Your task to perform on an android device: uninstall "Firefox Browser" Image 0: 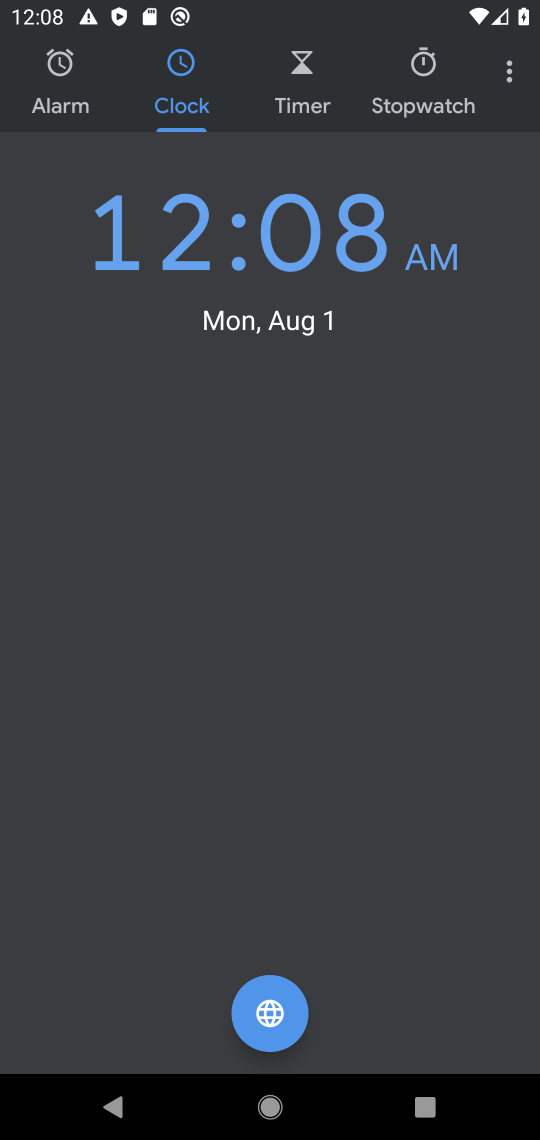
Step 0: press home button
Your task to perform on an android device: uninstall "Firefox Browser" Image 1: 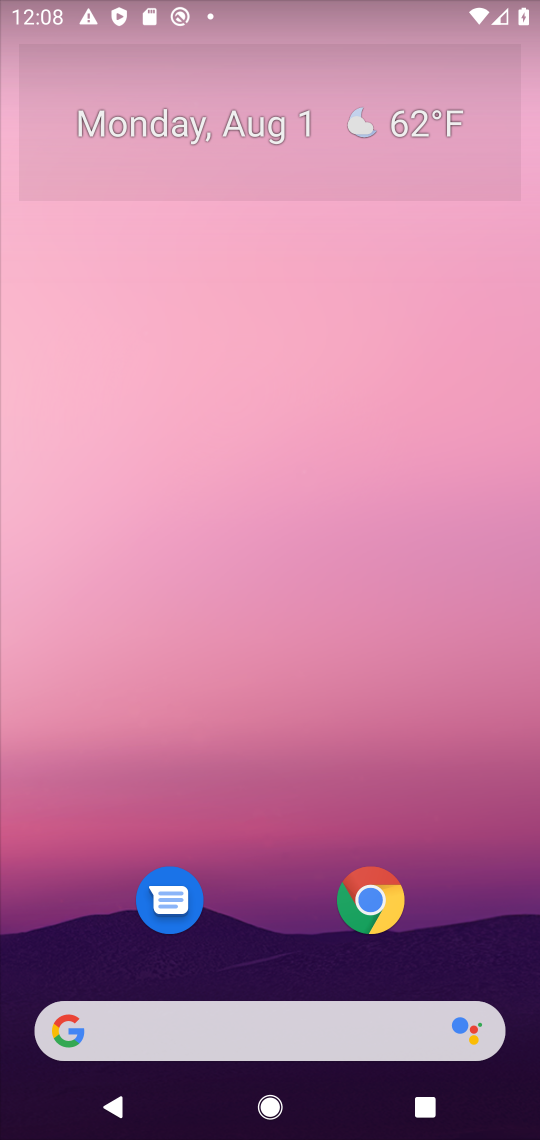
Step 1: drag from (334, 30) to (522, 27)
Your task to perform on an android device: uninstall "Firefox Browser" Image 2: 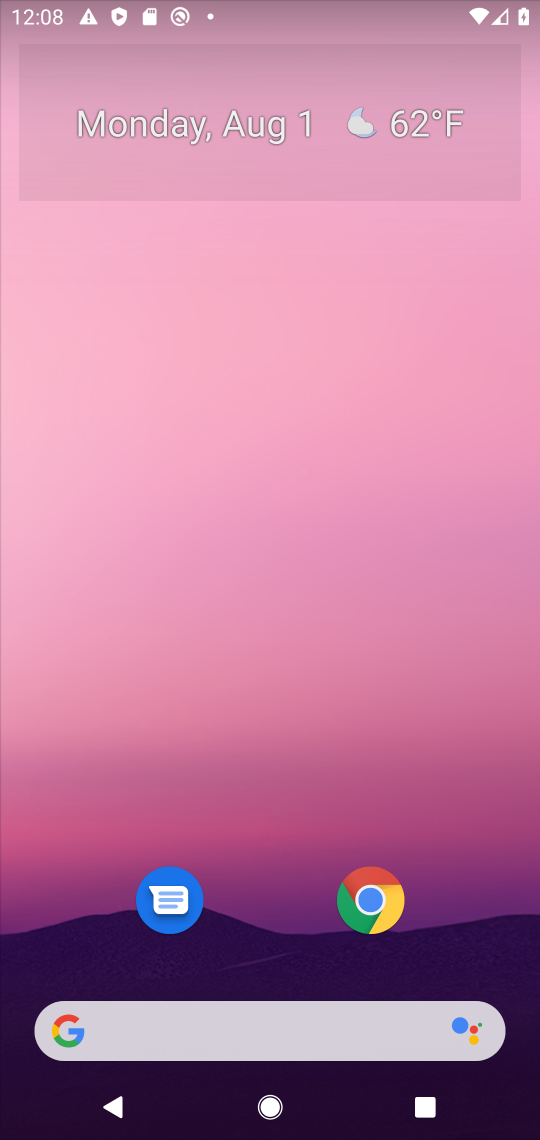
Step 2: drag from (359, 165) to (481, 20)
Your task to perform on an android device: uninstall "Firefox Browser" Image 3: 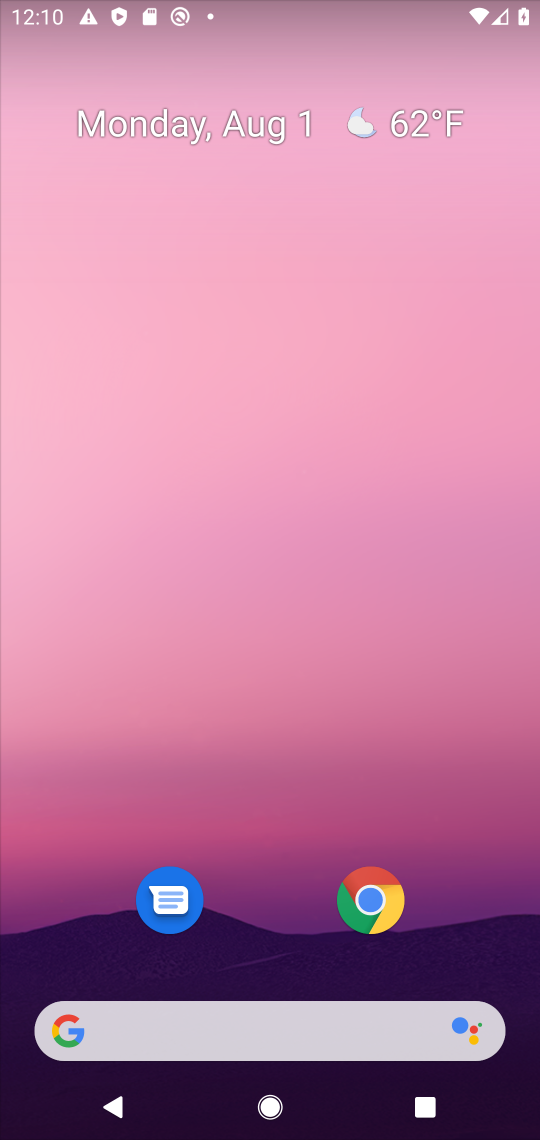
Step 3: drag from (143, 144) to (140, 6)
Your task to perform on an android device: uninstall "Firefox Browser" Image 4: 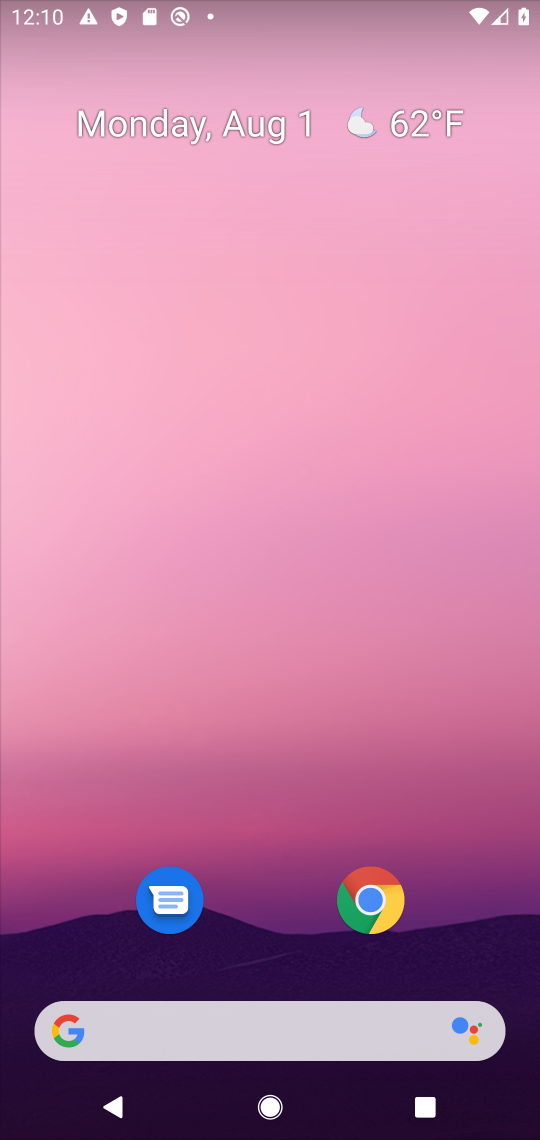
Step 4: drag from (334, 1063) to (493, 25)
Your task to perform on an android device: uninstall "Firefox Browser" Image 5: 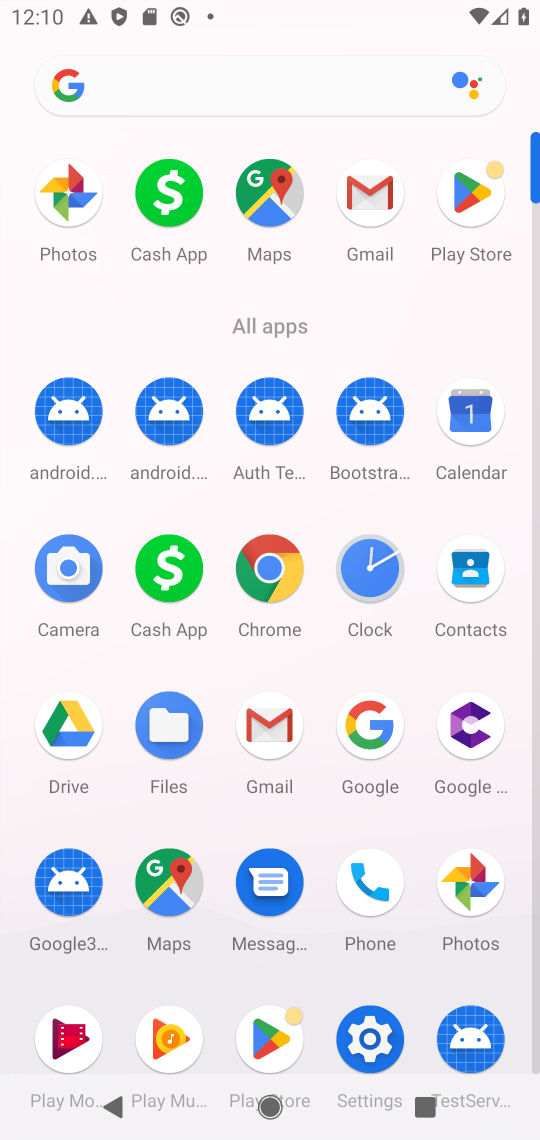
Step 5: click (483, 189)
Your task to perform on an android device: uninstall "Firefox Browser" Image 6: 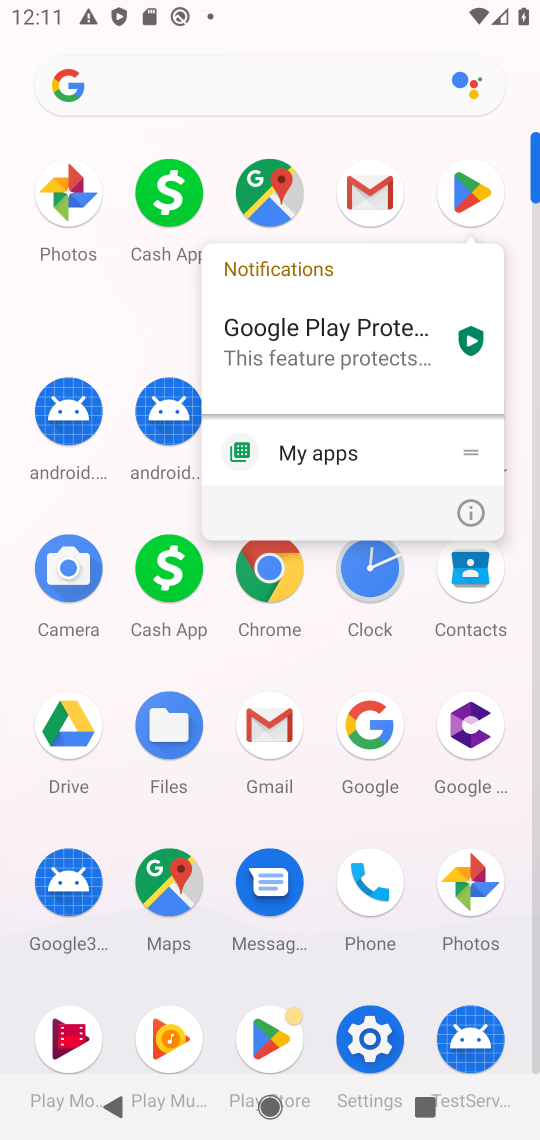
Step 6: click (466, 193)
Your task to perform on an android device: uninstall "Firefox Browser" Image 7: 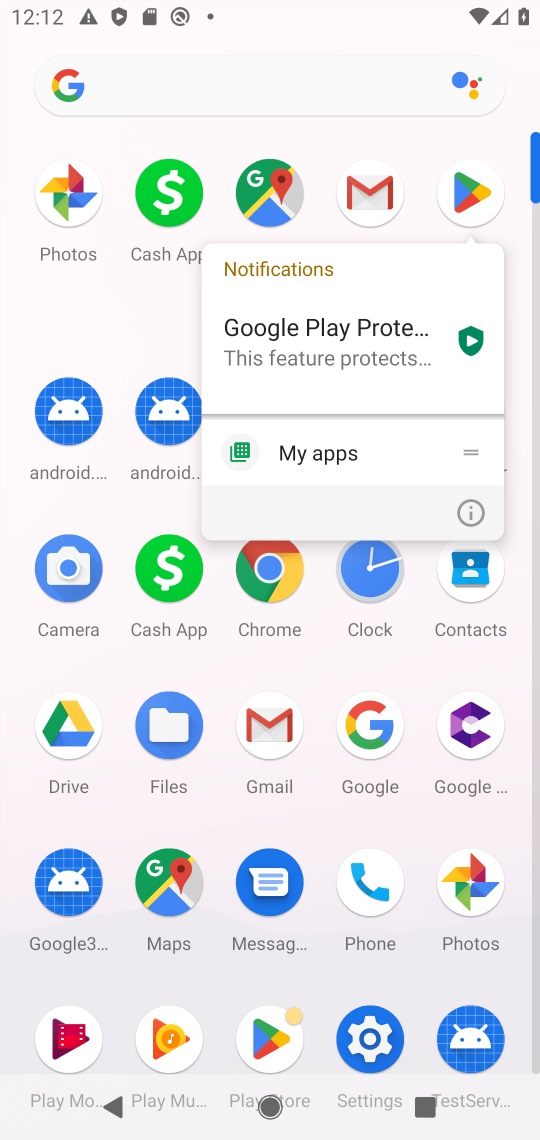
Step 7: click (355, 179)
Your task to perform on an android device: uninstall "Firefox Browser" Image 8: 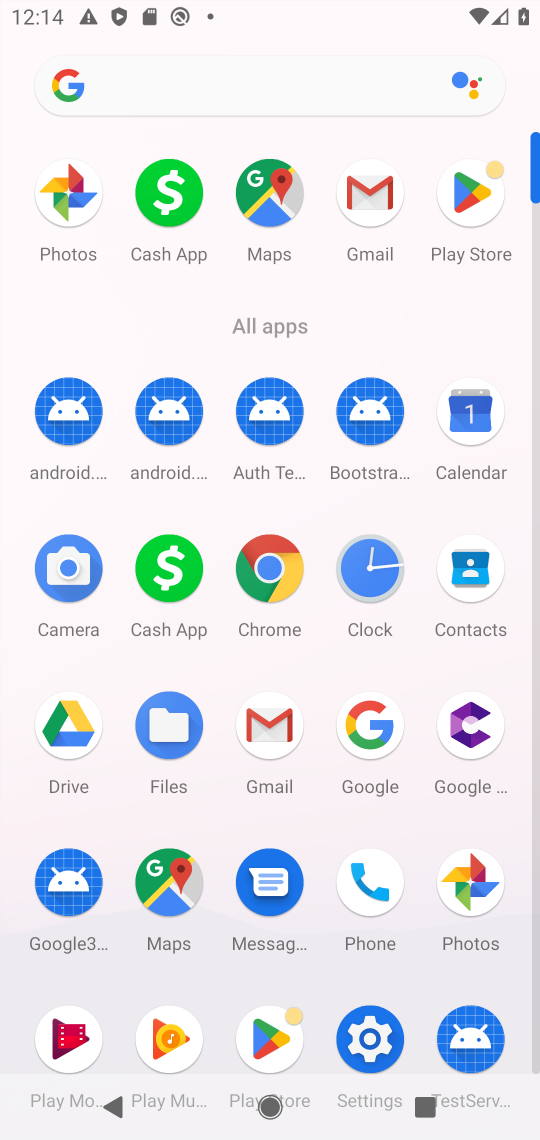
Step 8: click (459, 190)
Your task to perform on an android device: uninstall "Firefox Browser" Image 9: 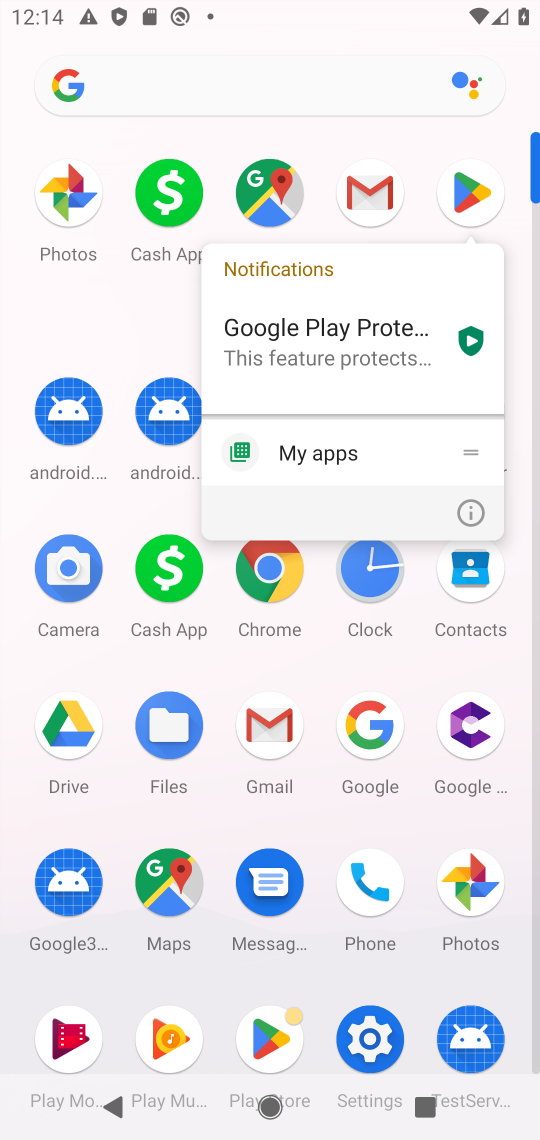
Step 9: click (466, 190)
Your task to perform on an android device: uninstall "Firefox Browser" Image 10: 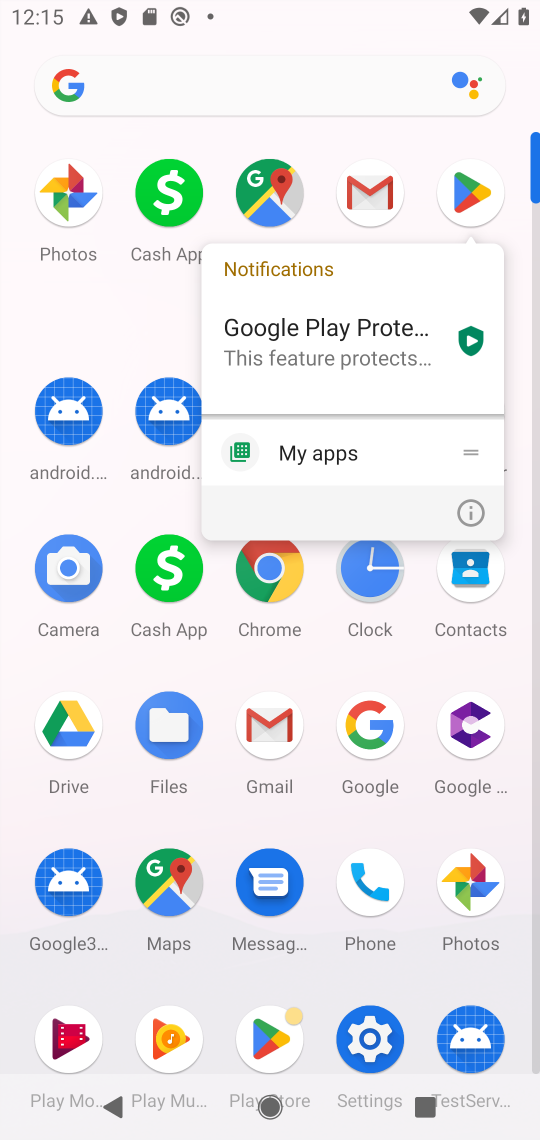
Step 10: click (467, 174)
Your task to perform on an android device: uninstall "Firefox Browser" Image 11: 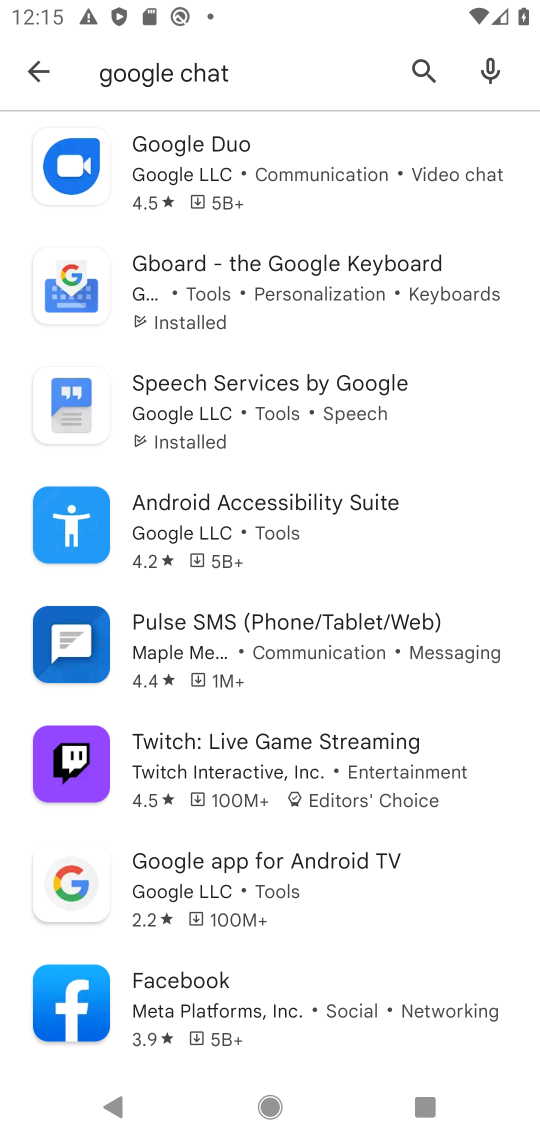
Step 11: click (424, 65)
Your task to perform on an android device: uninstall "Firefox Browser" Image 12: 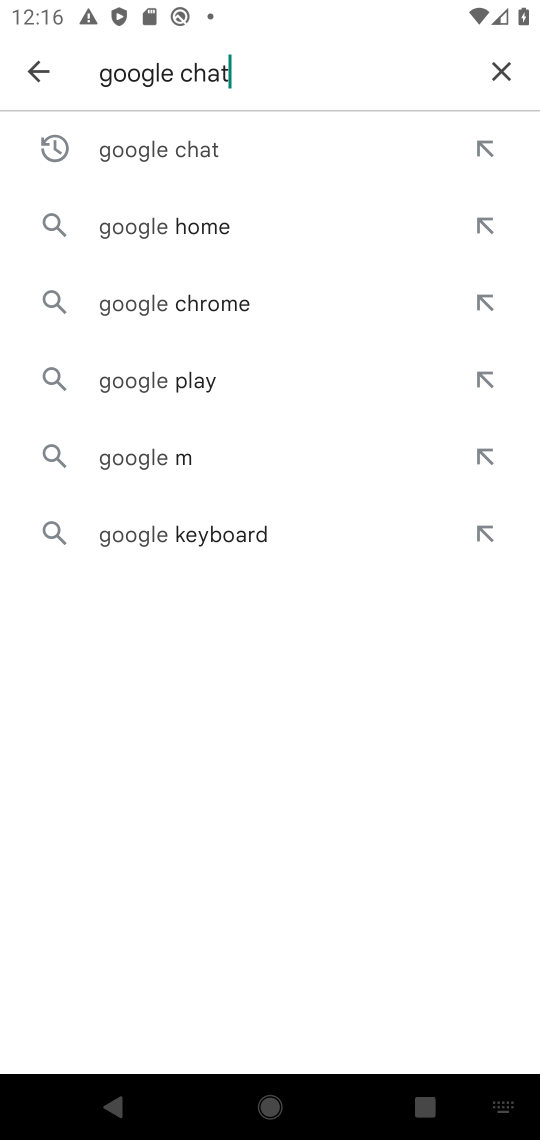
Step 12: type "Firefox Browser"
Your task to perform on an android device: uninstall "Firefox Browser" Image 13: 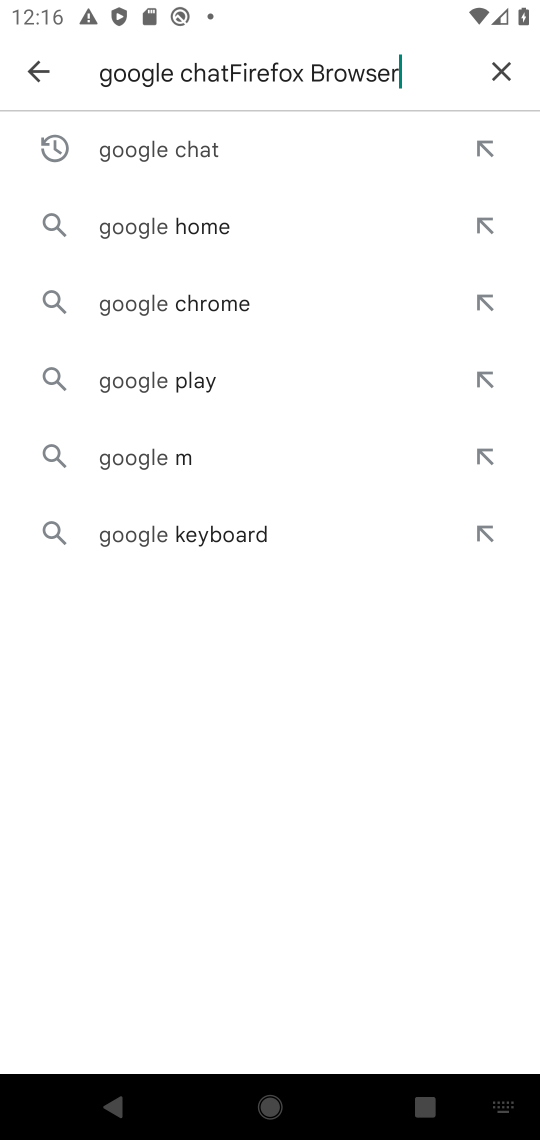
Step 13: click (505, 63)
Your task to perform on an android device: uninstall "Firefox Browser" Image 14: 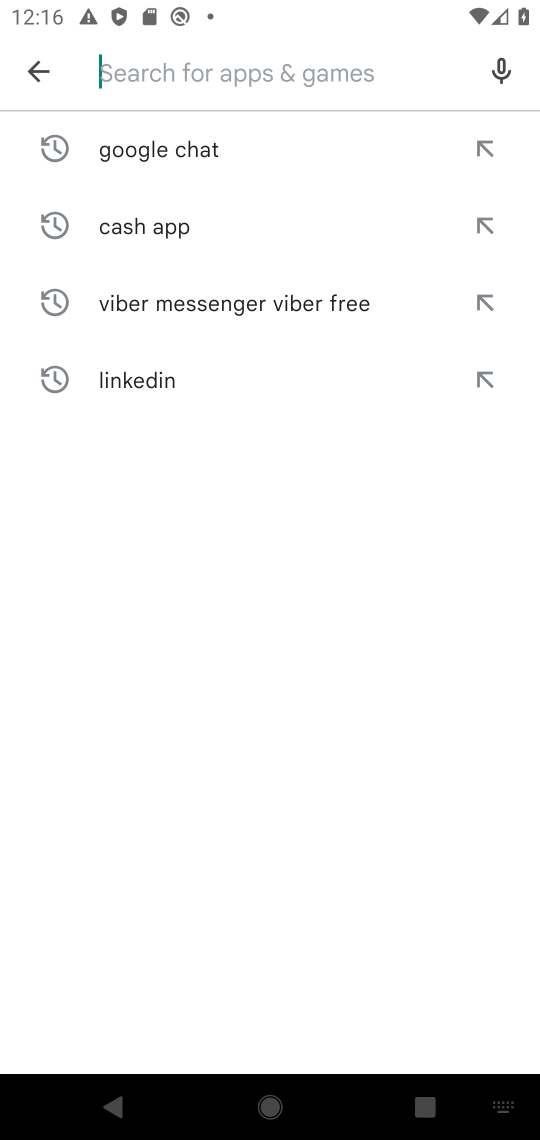
Step 14: type "Firefox Browser"
Your task to perform on an android device: uninstall "Firefox Browser" Image 15: 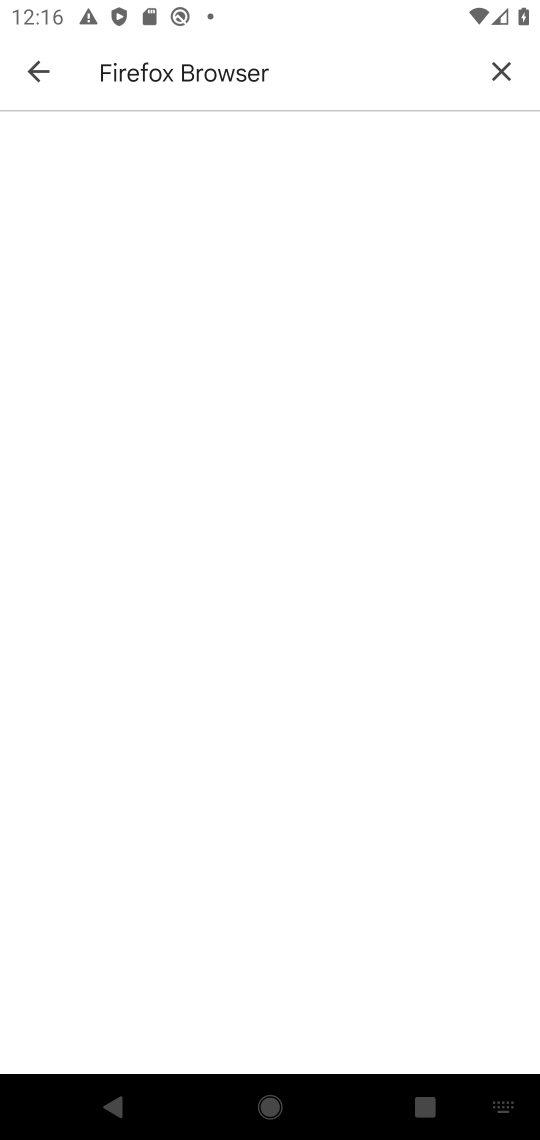
Step 15: press enter
Your task to perform on an android device: uninstall "Firefox Browser" Image 16: 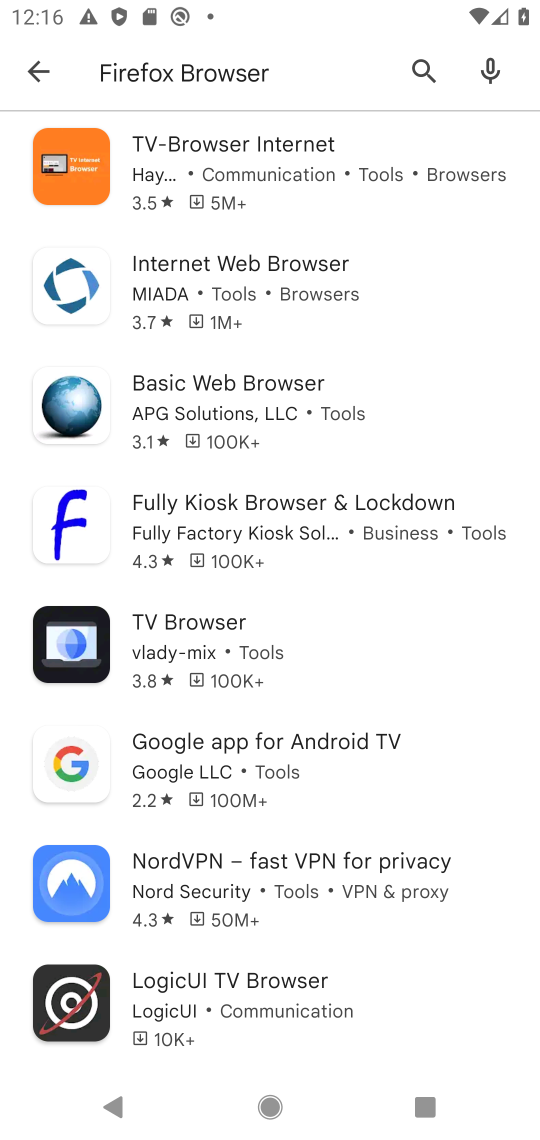
Step 16: task complete